Your task to perform on an android device: add a contact Image 0: 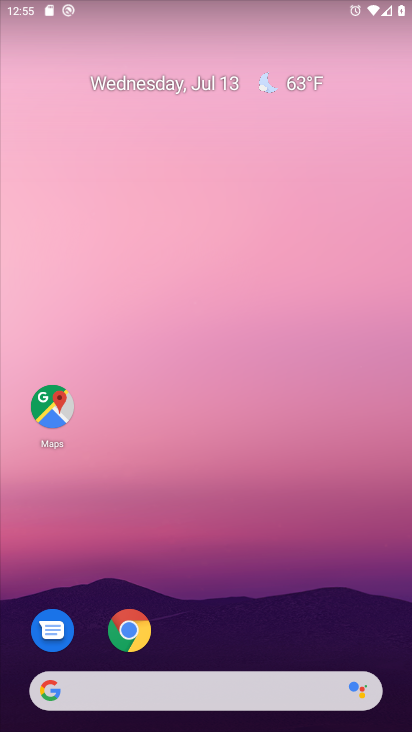
Step 0: drag from (202, 676) to (198, 259)
Your task to perform on an android device: add a contact Image 1: 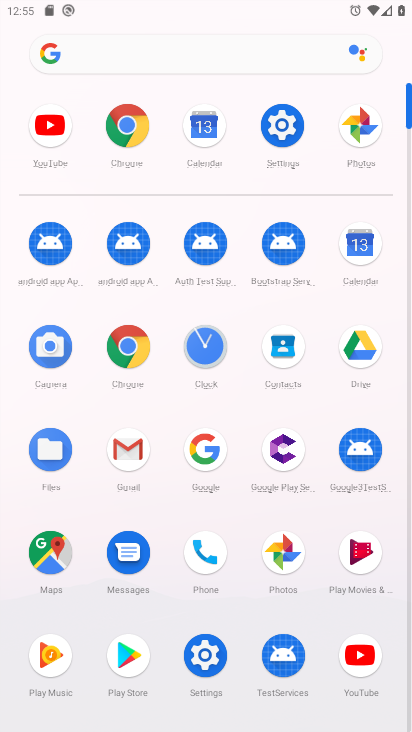
Step 1: click (284, 348)
Your task to perform on an android device: add a contact Image 2: 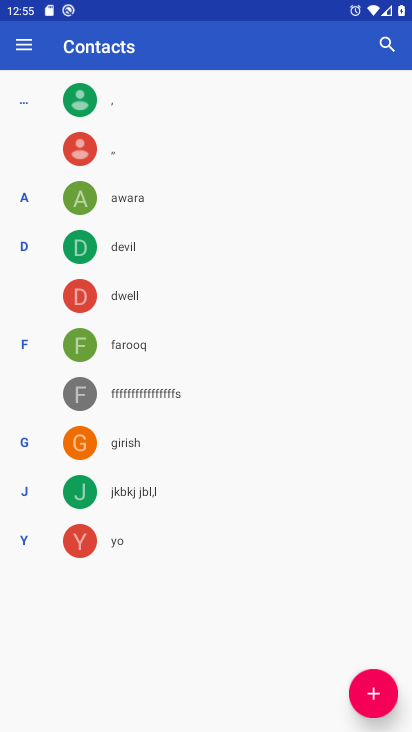
Step 2: click (372, 689)
Your task to perform on an android device: add a contact Image 3: 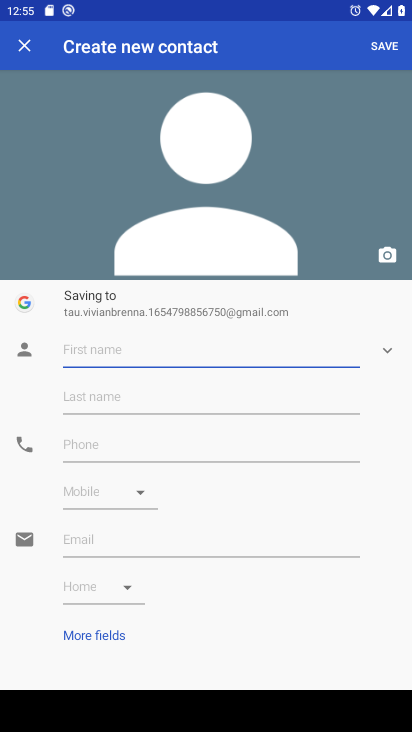
Step 3: type "bvcbbv"
Your task to perform on an android device: add a contact Image 4: 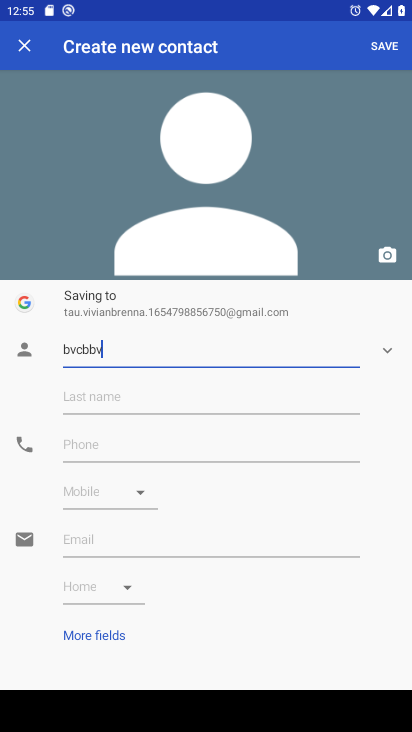
Step 4: click (144, 451)
Your task to perform on an android device: add a contact Image 5: 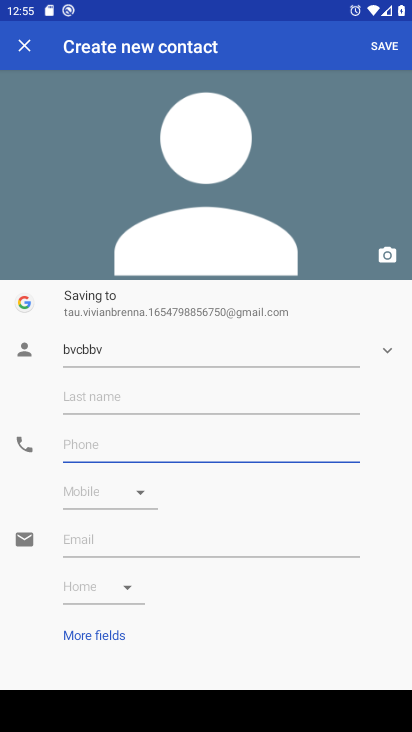
Step 5: type "75675876"
Your task to perform on an android device: add a contact Image 6: 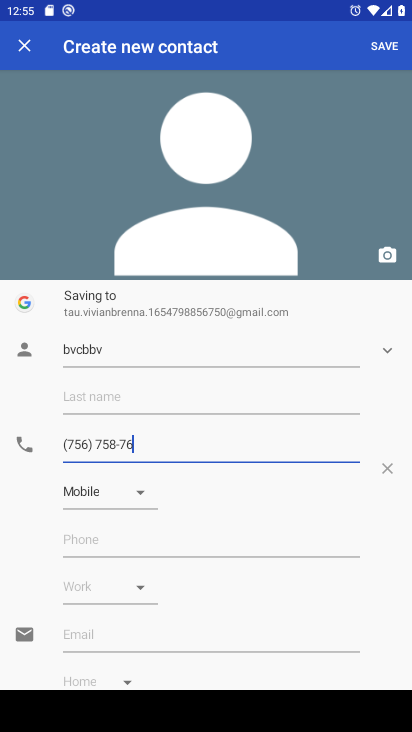
Step 6: click (375, 41)
Your task to perform on an android device: add a contact Image 7: 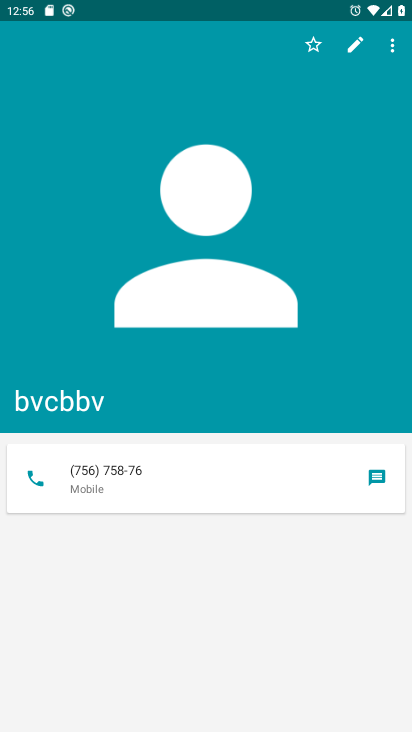
Step 7: task complete